Your task to perform on an android device: turn smart compose on in the gmail app Image 0: 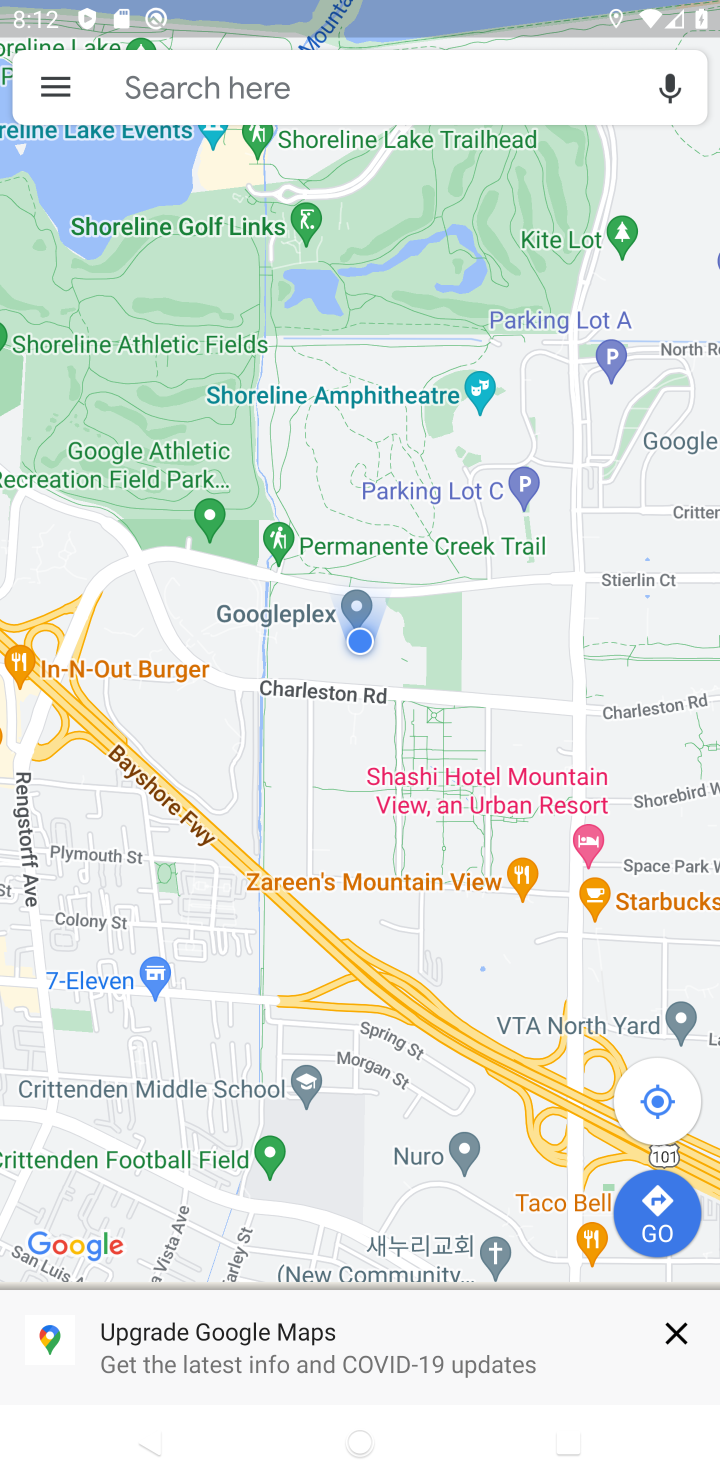
Step 0: press home button
Your task to perform on an android device: turn smart compose on in the gmail app Image 1: 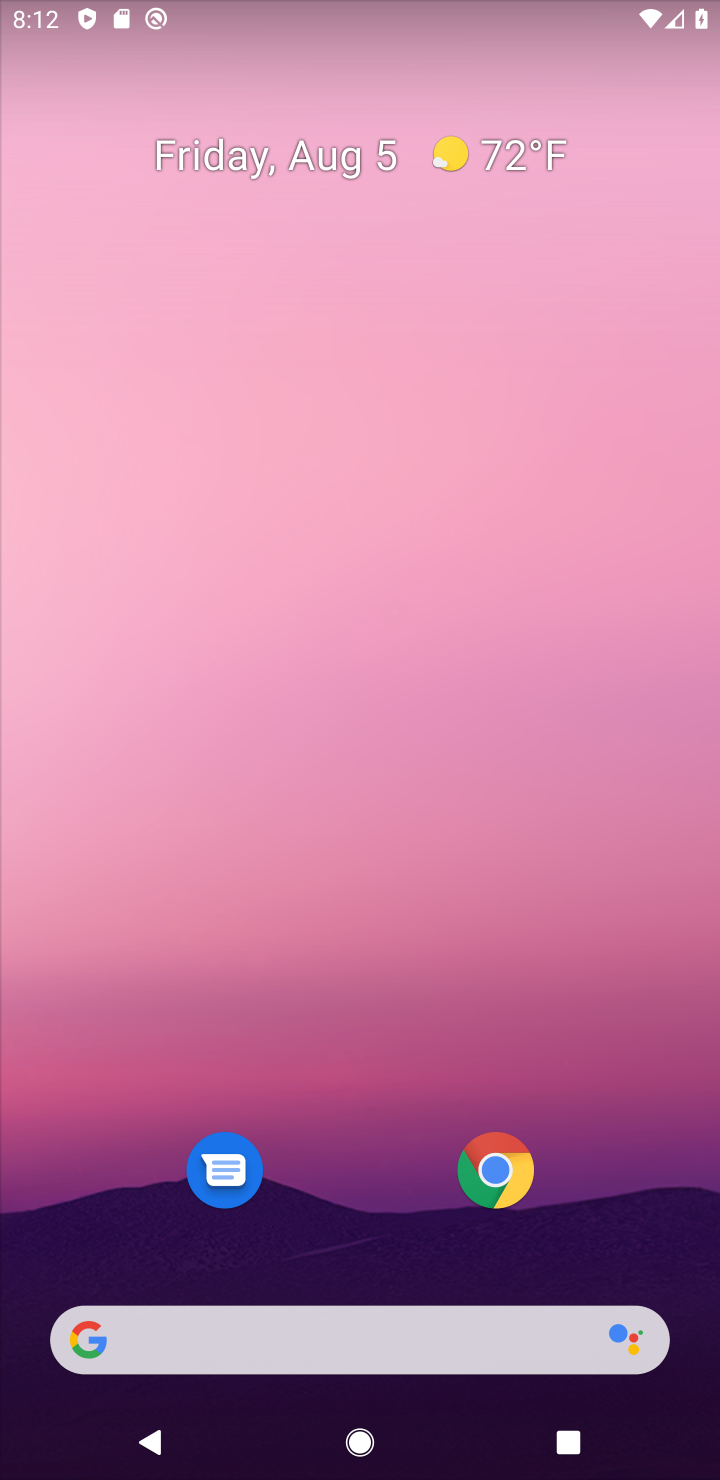
Step 1: drag from (634, 1195) to (614, 219)
Your task to perform on an android device: turn smart compose on in the gmail app Image 2: 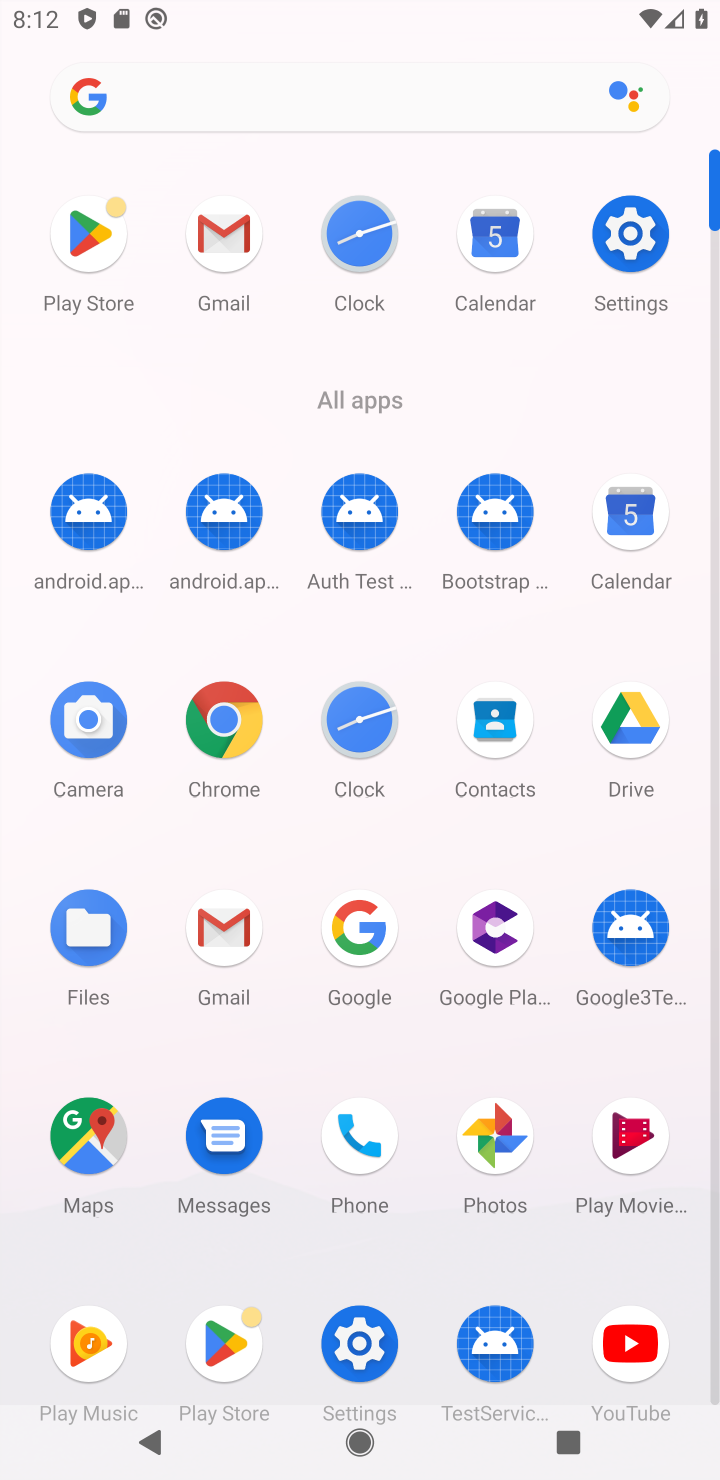
Step 2: click (220, 919)
Your task to perform on an android device: turn smart compose on in the gmail app Image 3: 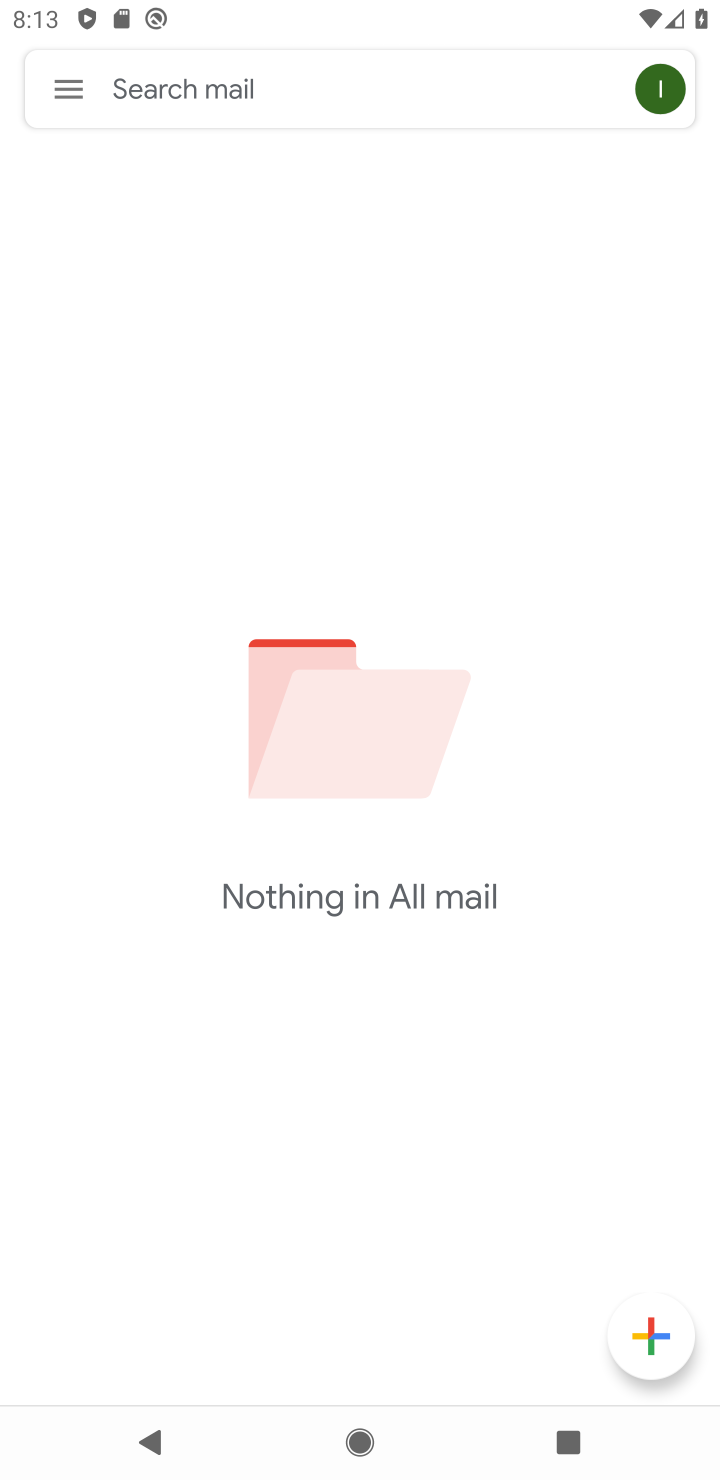
Step 3: click (57, 94)
Your task to perform on an android device: turn smart compose on in the gmail app Image 4: 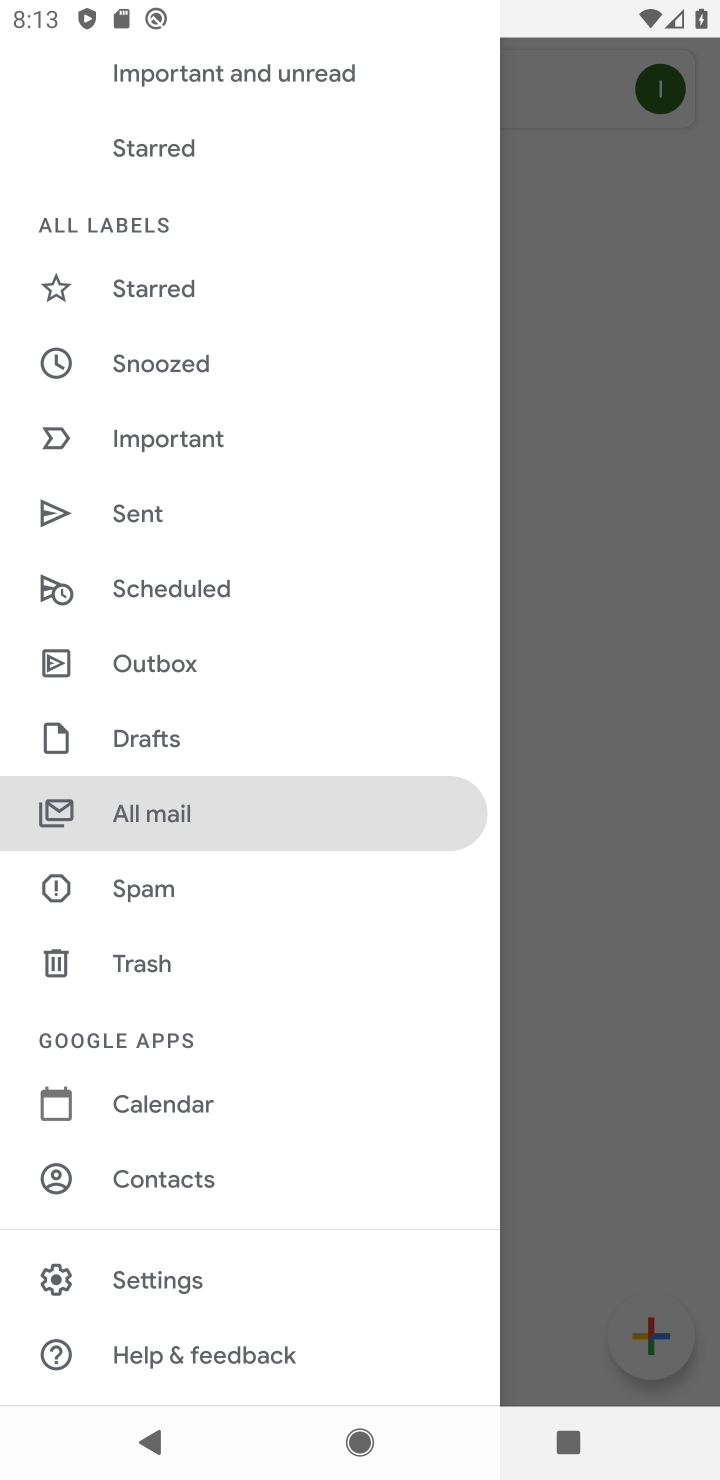
Step 4: click (159, 1273)
Your task to perform on an android device: turn smart compose on in the gmail app Image 5: 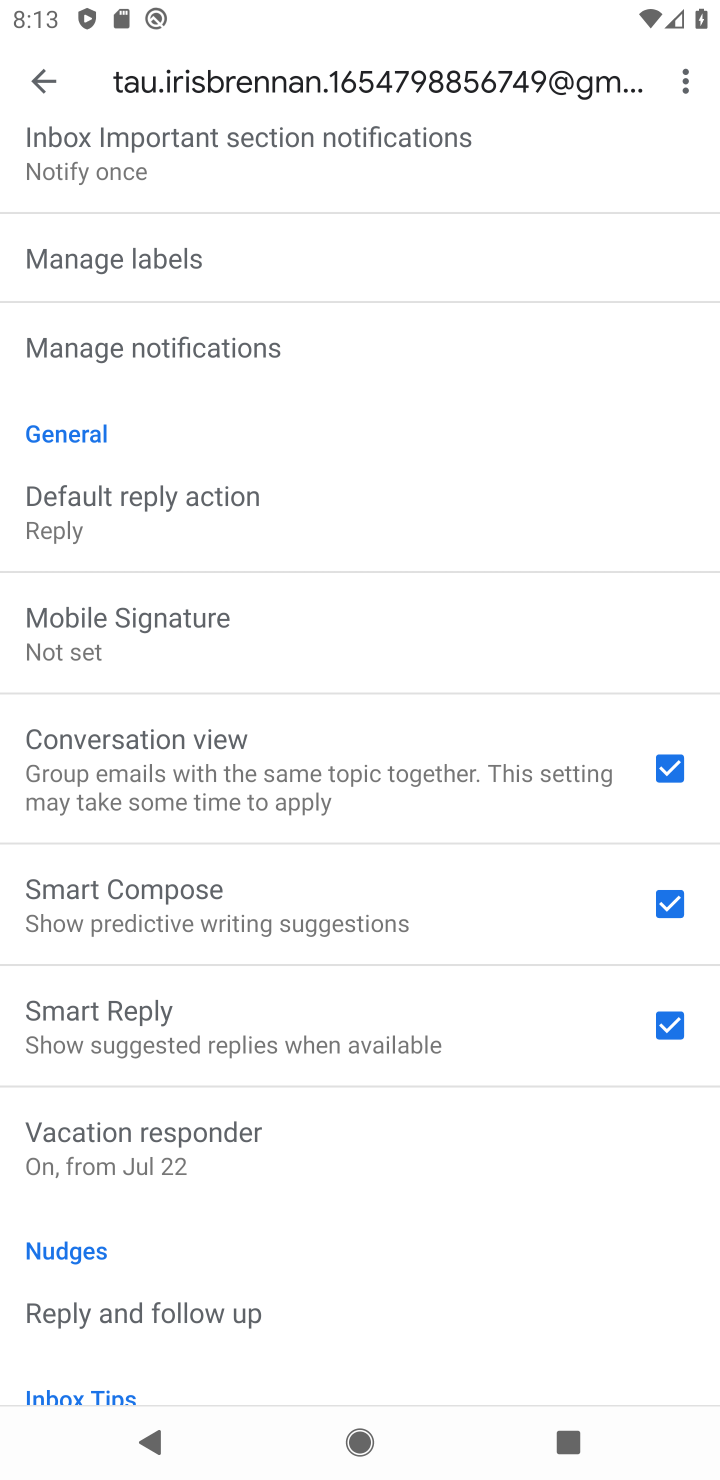
Step 5: task complete